Your task to perform on an android device: open app "Upside-Cash back on gas & food" (install if not already installed) and enter user name: "transatlantic@gmail.com" and password: "experiences" Image 0: 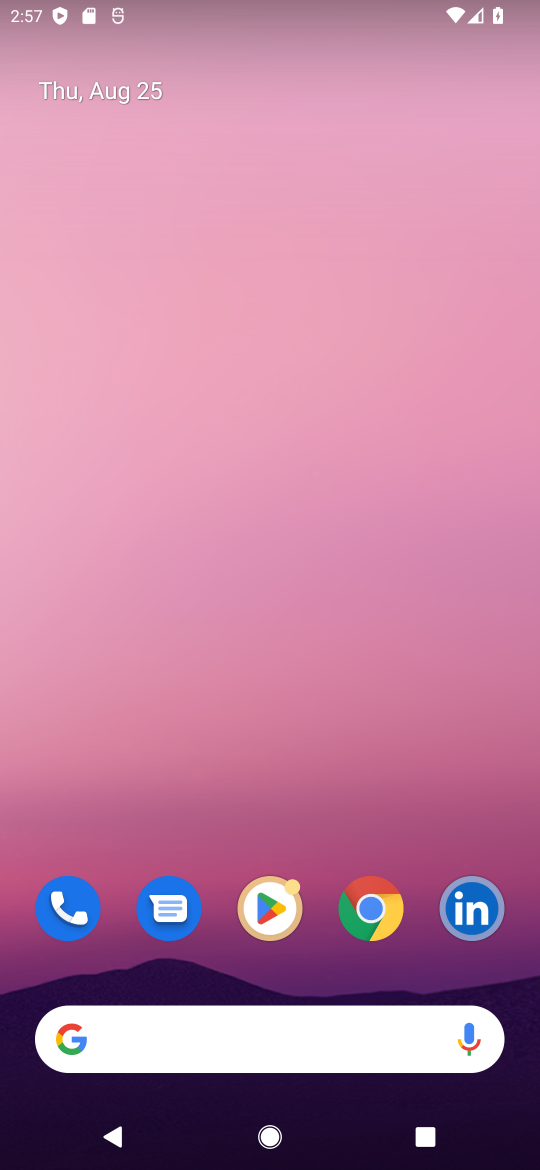
Step 0: click (259, 895)
Your task to perform on an android device: open app "Upside-Cash back on gas & food" (install if not already installed) and enter user name: "transatlantic@gmail.com" and password: "experiences" Image 1: 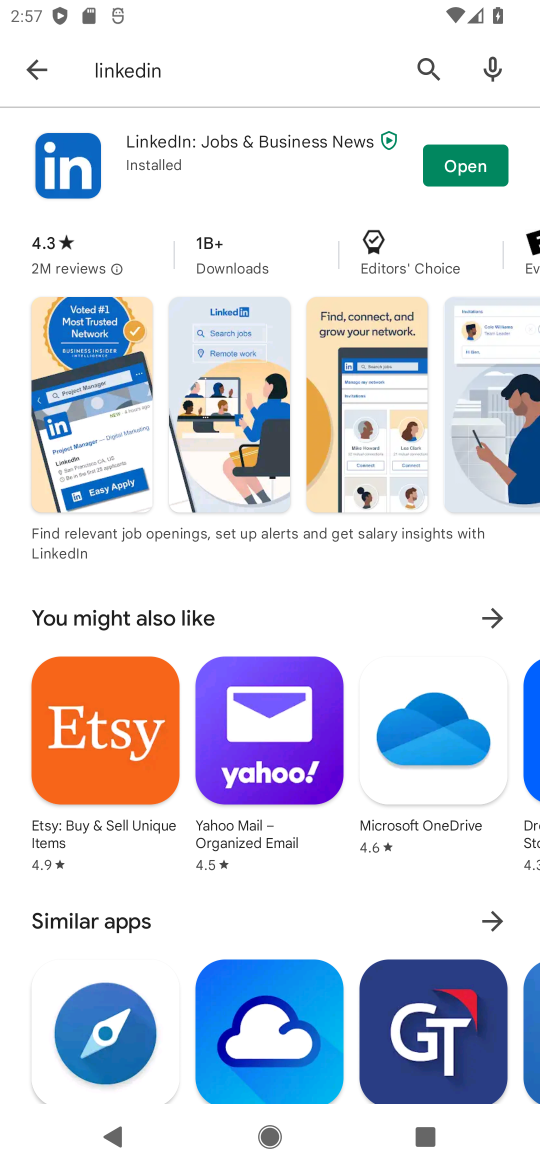
Step 1: click (433, 68)
Your task to perform on an android device: open app "Upside-Cash back on gas & food" (install if not already installed) and enter user name: "transatlantic@gmail.com" and password: "experiences" Image 2: 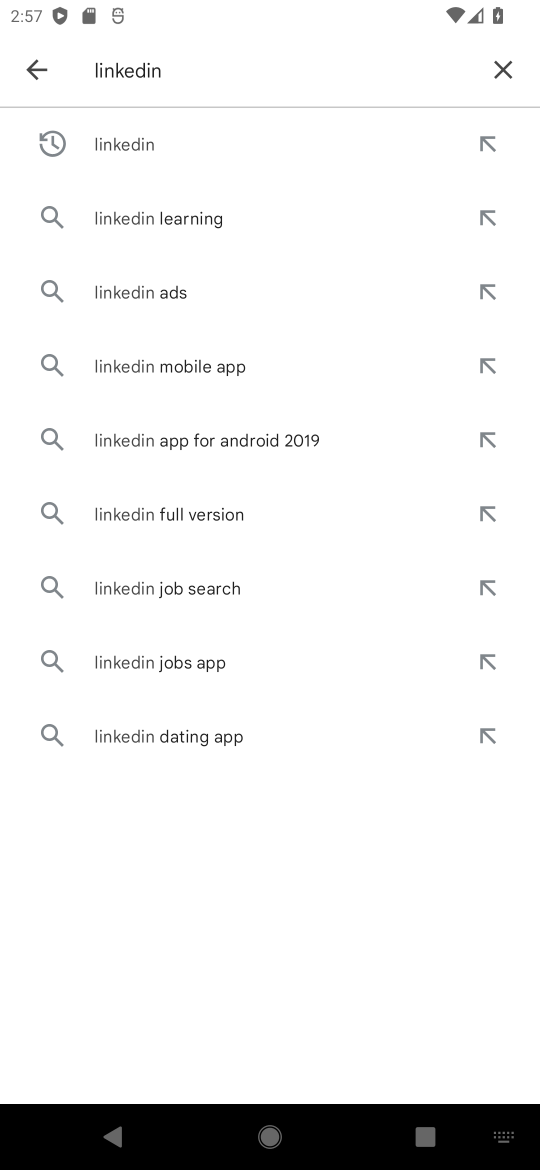
Step 2: click (498, 68)
Your task to perform on an android device: open app "Upside-Cash back on gas & food" (install if not already installed) and enter user name: "transatlantic@gmail.com" and password: "experiences" Image 3: 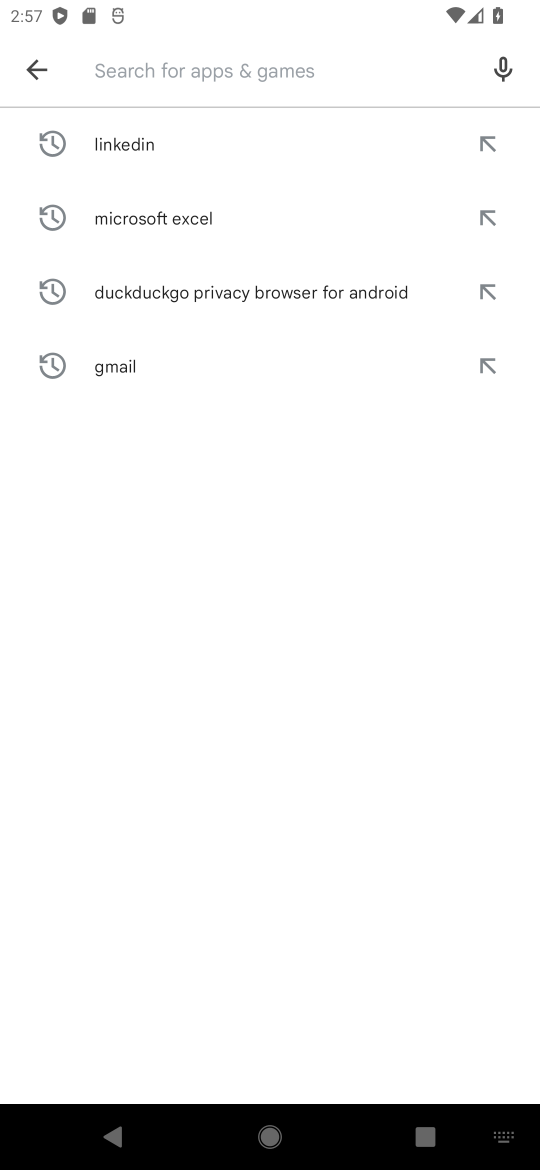
Step 3: type "Upside-Cash back on gas & food"
Your task to perform on an android device: open app "Upside-Cash back on gas & food" (install if not already installed) and enter user name: "transatlantic@gmail.com" and password: "experiences" Image 4: 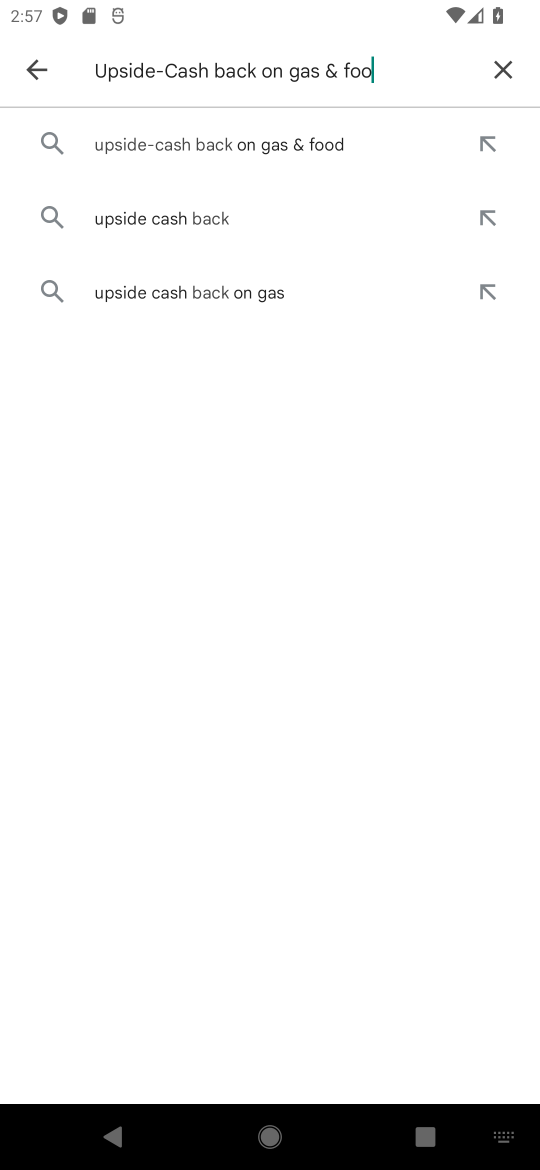
Step 4: type ""
Your task to perform on an android device: open app "Upside-Cash back on gas & food" (install if not already installed) and enter user name: "transatlantic@gmail.com" and password: "experiences" Image 5: 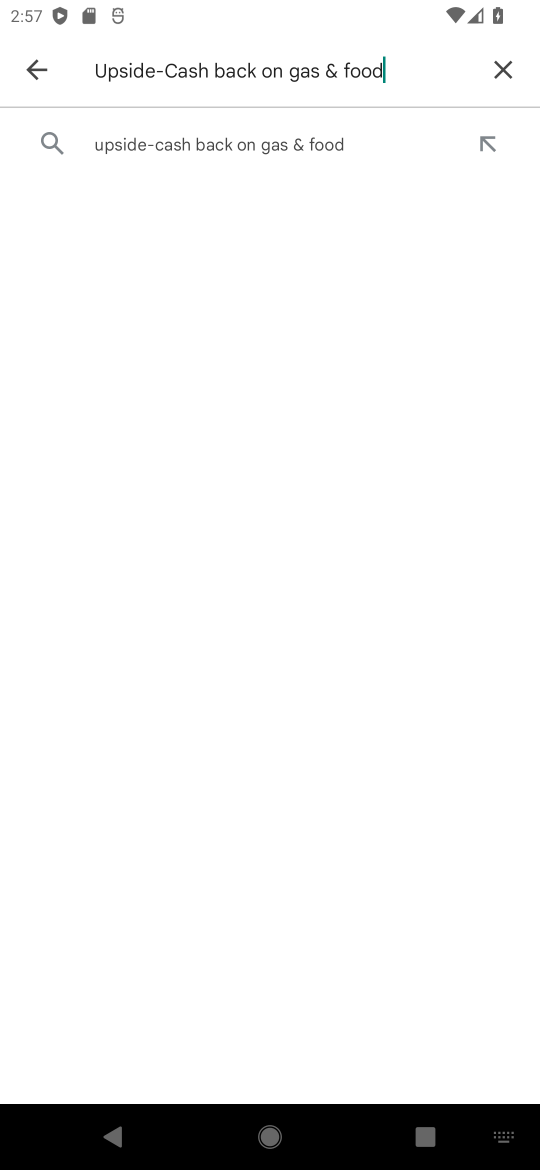
Step 5: click (295, 132)
Your task to perform on an android device: open app "Upside-Cash back on gas & food" (install if not already installed) and enter user name: "transatlantic@gmail.com" and password: "experiences" Image 6: 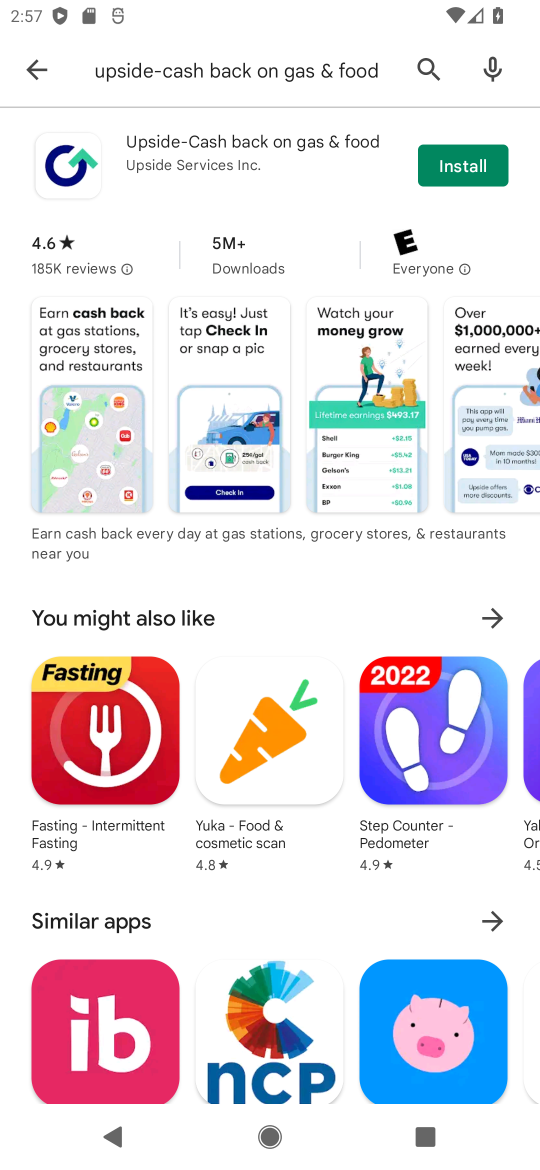
Step 6: click (434, 173)
Your task to perform on an android device: open app "Upside-Cash back on gas & food" (install if not already installed) and enter user name: "transatlantic@gmail.com" and password: "experiences" Image 7: 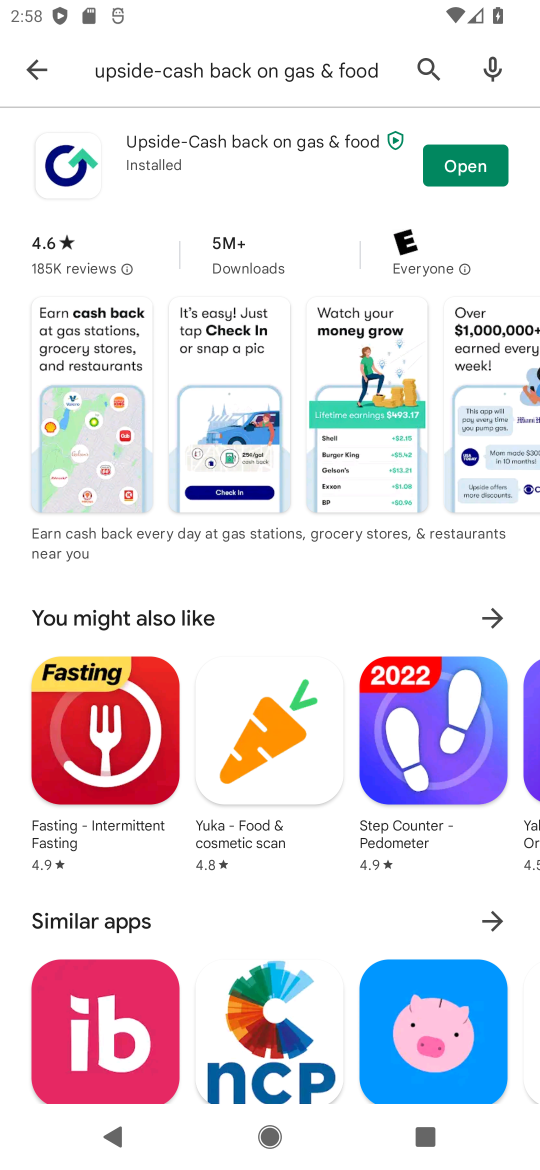
Step 7: click (434, 173)
Your task to perform on an android device: open app "Upside-Cash back on gas & food" (install if not already installed) and enter user name: "transatlantic@gmail.com" and password: "experiences" Image 8: 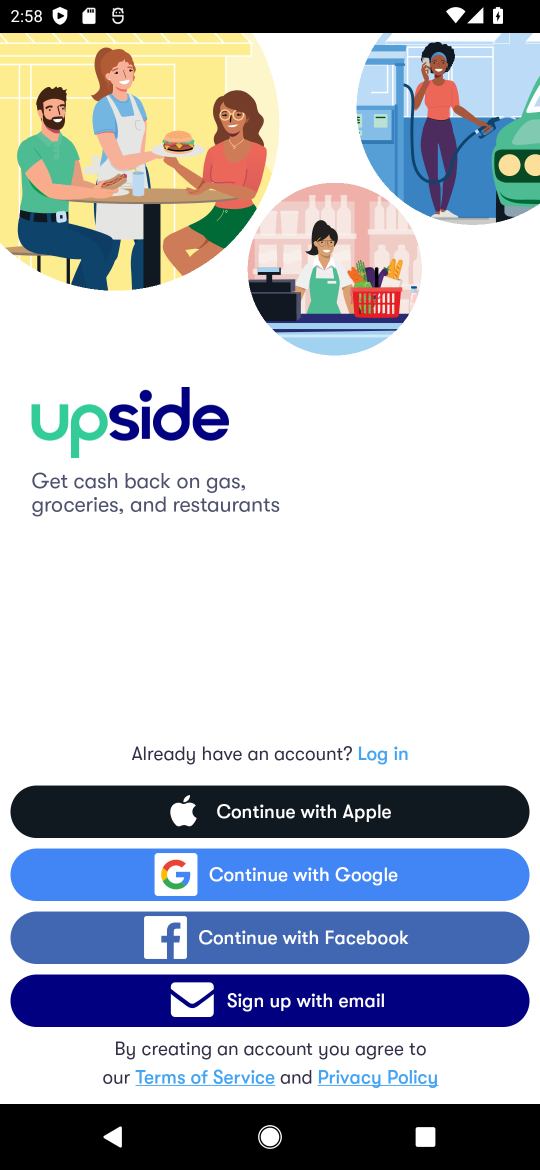
Step 8: task complete